Your task to perform on an android device: snooze an email in the gmail app Image 0: 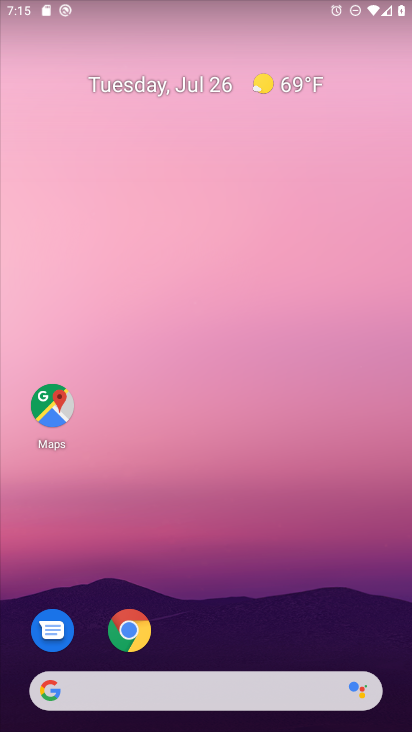
Step 0: drag from (200, 578) to (231, 97)
Your task to perform on an android device: snooze an email in the gmail app Image 1: 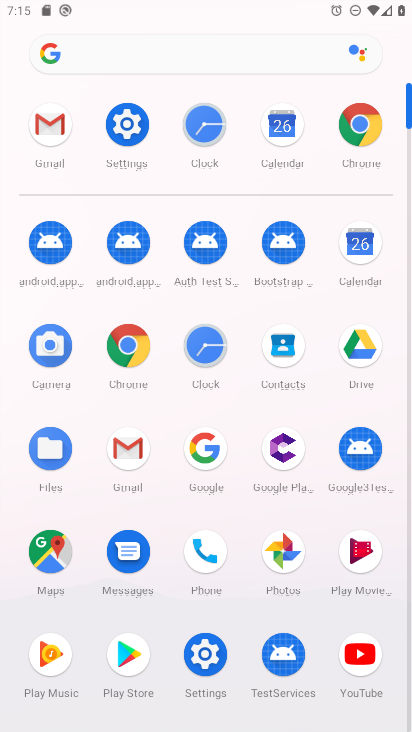
Step 1: click (138, 457)
Your task to perform on an android device: snooze an email in the gmail app Image 2: 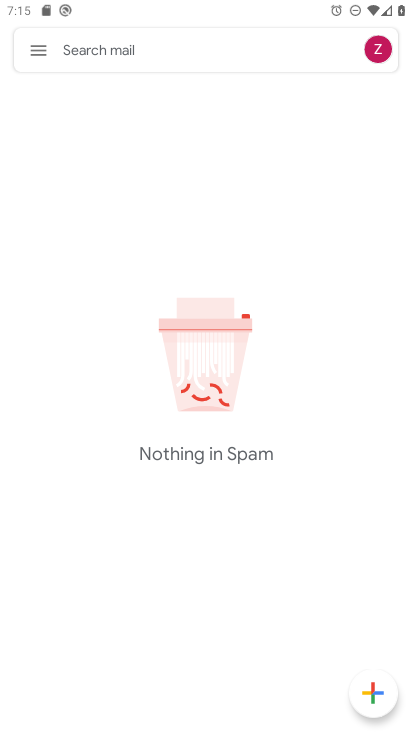
Step 2: press home button
Your task to perform on an android device: snooze an email in the gmail app Image 3: 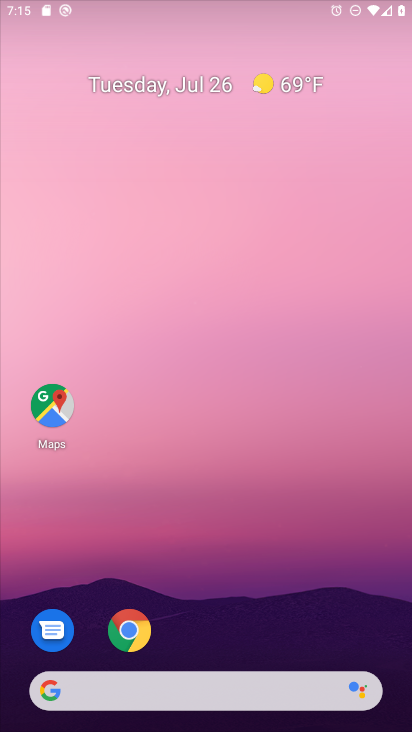
Step 3: drag from (263, 606) to (265, 6)
Your task to perform on an android device: snooze an email in the gmail app Image 4: 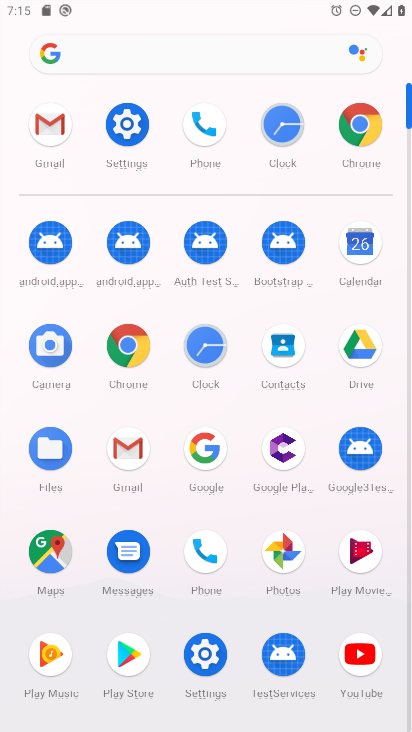
Step 4: click (125, 454)
Your task to perform on an android device: snooze an email in the gmail app Image 5: 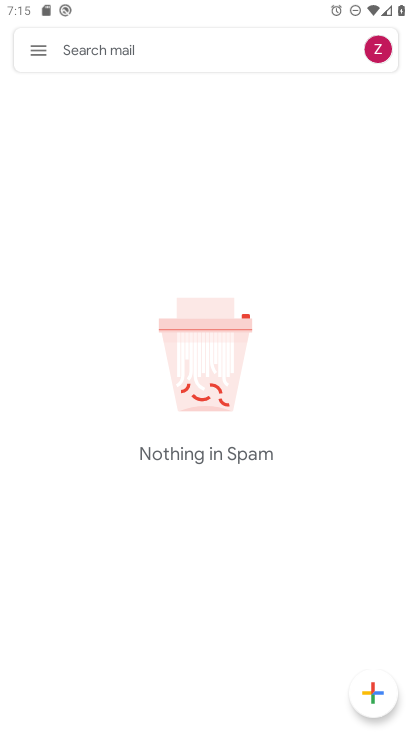
Step 5: click (33, 52)
Your task to perform on an android device: snooze an email in the gmail app Image 6: 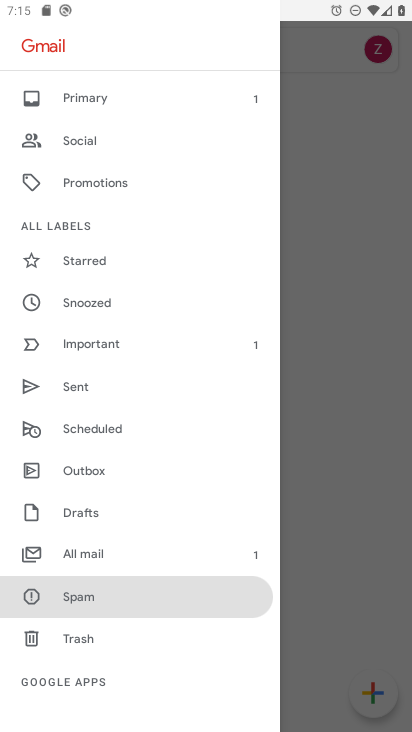
Step 6: click (145, 554)
Your task to perform on an android device: snooze an email in the gmail app Image 7: 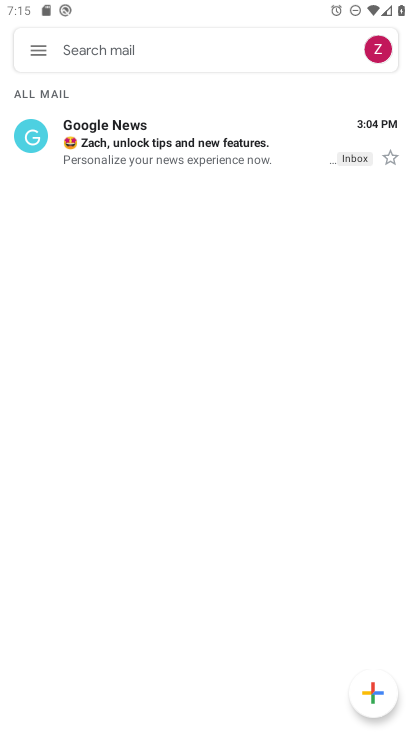
Step 7: click (258, 161)
Your task to perform on an android device: snooze an email in the gmail app Image 8: 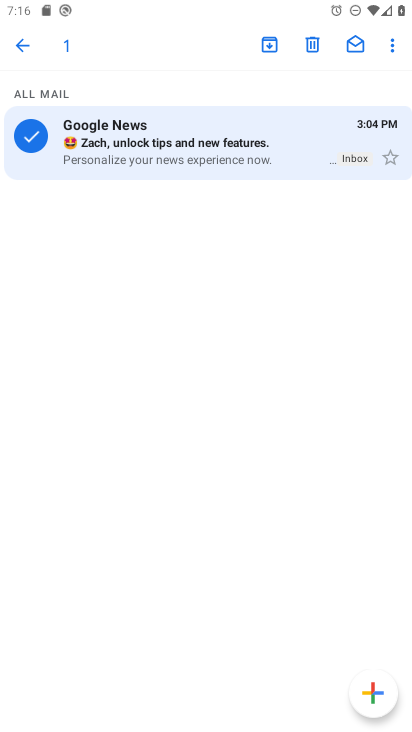
Step 8: click (394, 41)
Your task to perform on an android device: snooze an email in the gmail app Image 9: 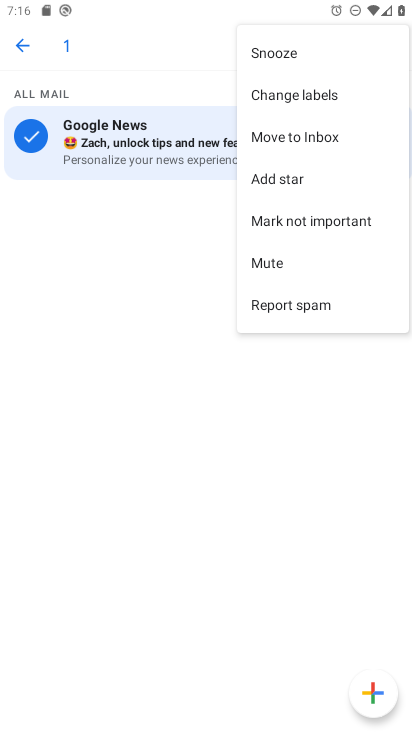
Step 9: click (301, 57)
Your task to perform on an android device: snooze an email in the gmail app Image 10: 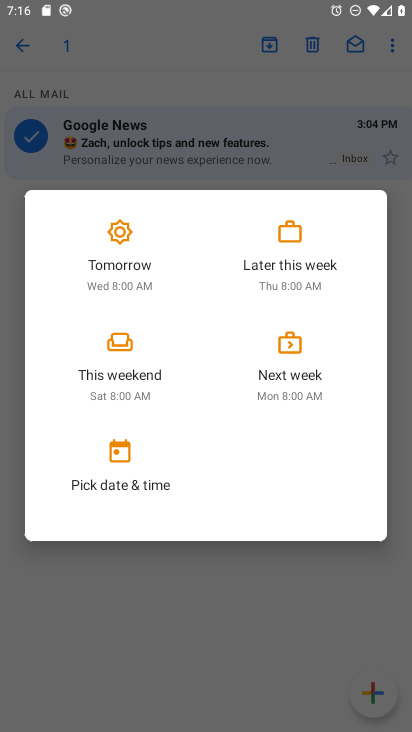
Step 10: click (132, 248)
Your task to perform on an android device: snooze an email in the gmail app Image 11: 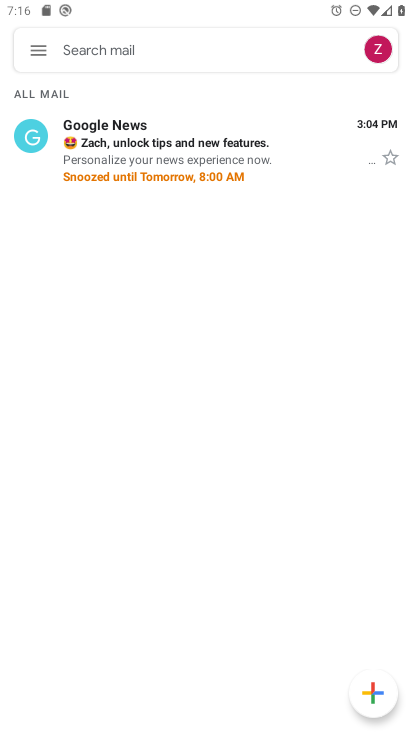
Step 11: task complete